Your task to perform on an android device: Open Google Chrome and click the shortcut for Amazon.com Image 0: 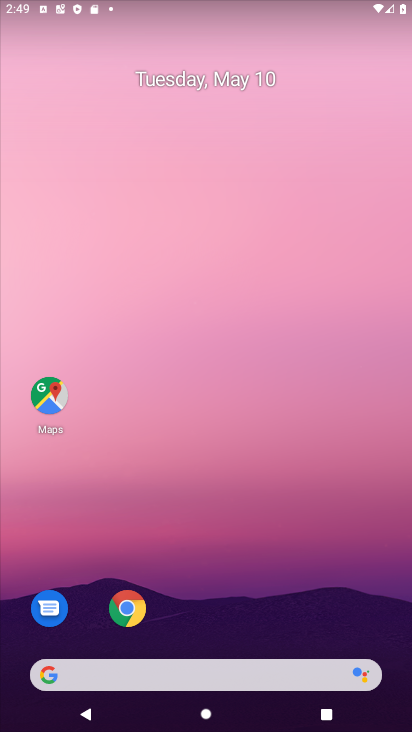
Step 0: click (126, 608)
Your task to perform on an android device: Open Google Chrome and click the shortcut for Amazon.com Image 1: 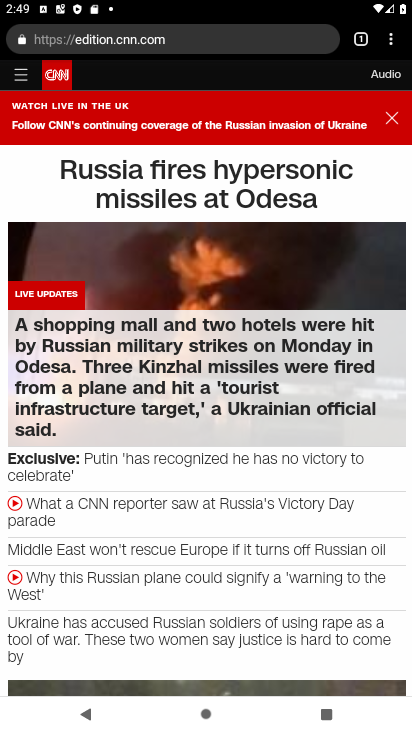
Step 1: click (172, 36)
Your task to perform on an android device: Open Google Chrome and click the shortcut for Amazon.com Image 2: 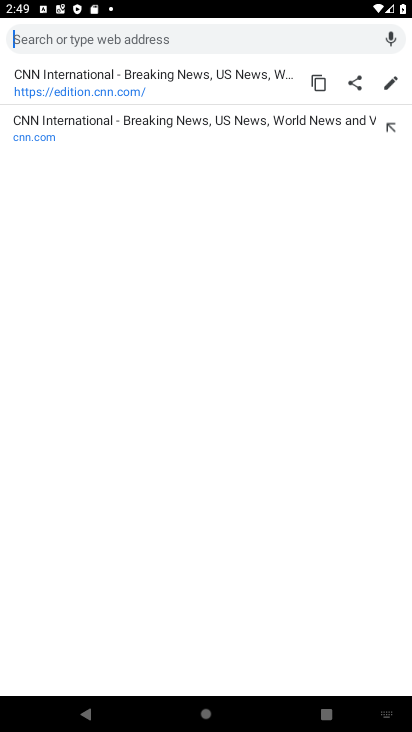
Step 2: press back button
Your task to perform on an android device: Open Google Chrome and click the shortcut for Amazon.com Image 3: 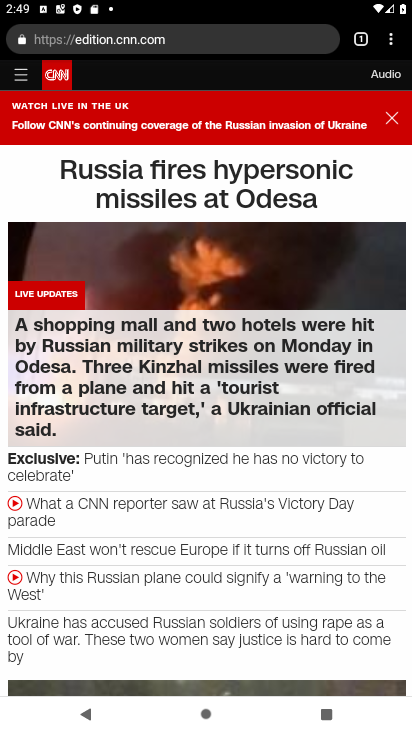
Step 3: click (396, 44)
Your task to perform on an android device: Open Google Chrome and click the shortcut for Amazon.com Image 4: 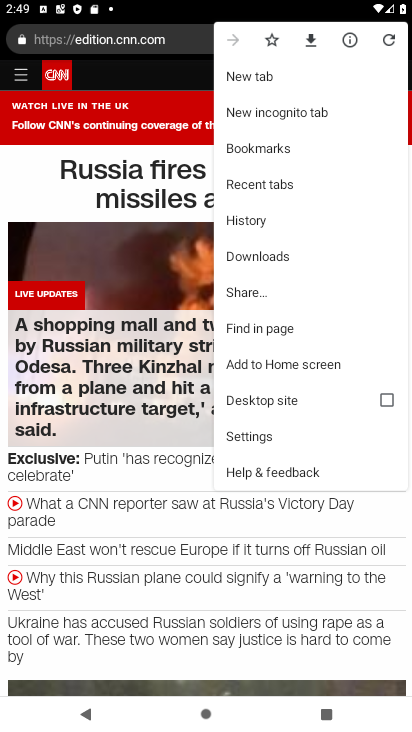
Step 4: click (238, 72)
Your task to perform on an android device: Open Google Chrome and click the shortcut for Amazon.com Image 5: 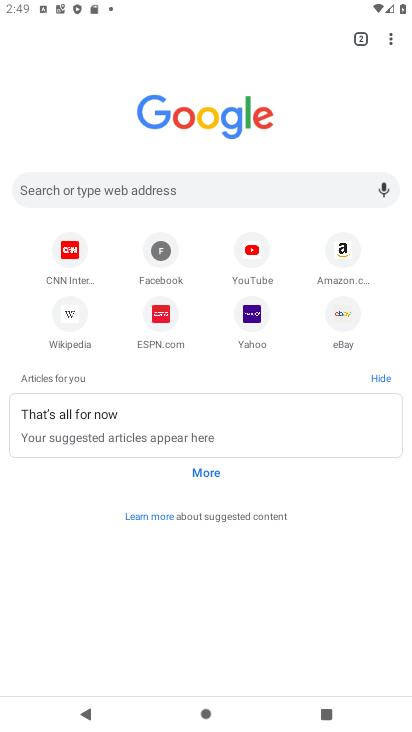
Step 5: click (340, 248)
Your task to perform on an android device: Open Google Chrome and click the shortcut for Amazon.com Image 6: 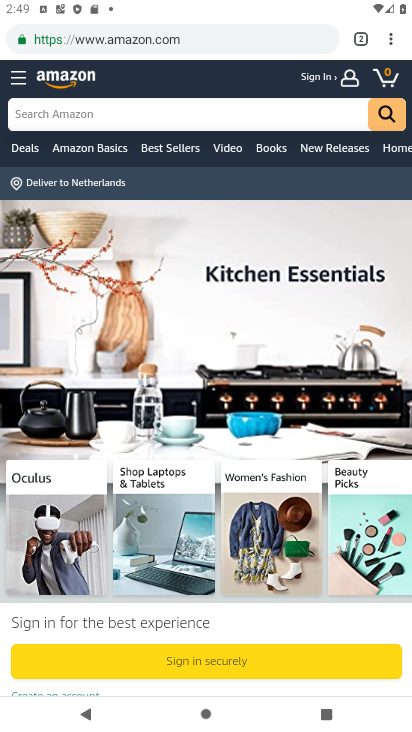
Step 6: task complete